Your task to perform on an android device: toggle wifi Image 0: 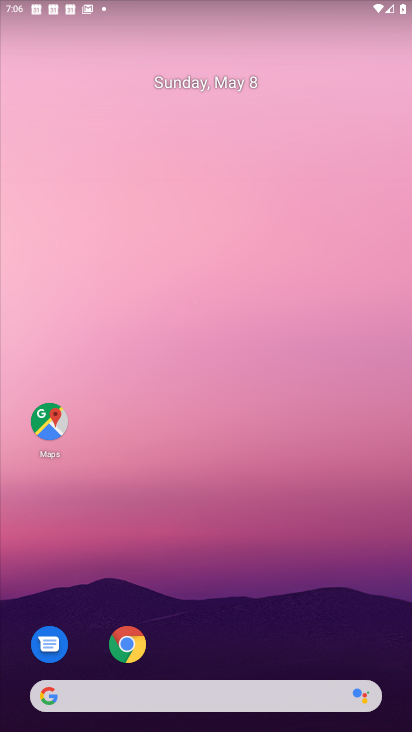
Step 0: drag from (162, 5) to (203, 297)
Your task to perform on an android device: toggle wifi Image 1: 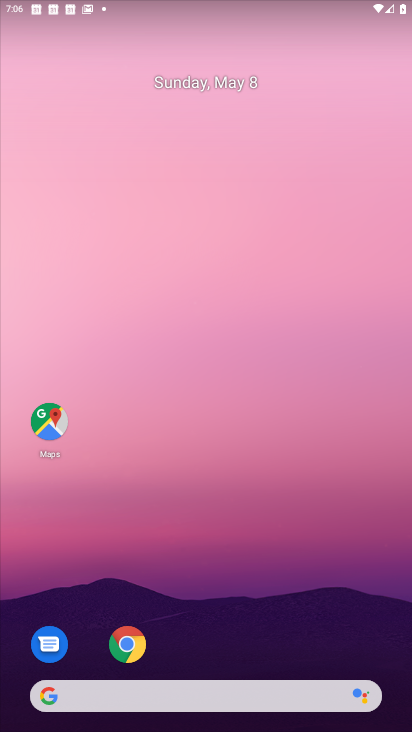
Step 1: drag from (187, 14) to (240, 653)
Your task to perform on an android device: toggle wifi Image 2: 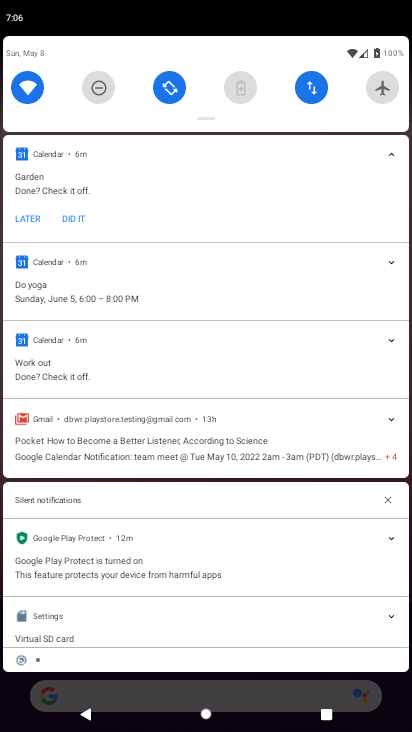
Step 2: click (26, 90)
Your task to perform on an android device: toggle wifi Image 3: 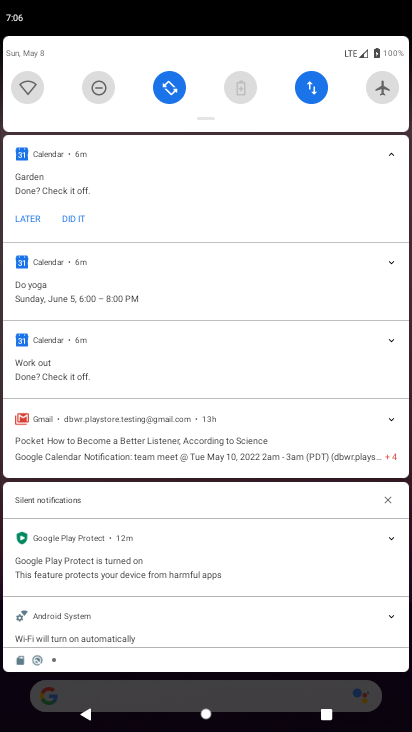
Step 3: task complete